Your task to perform on an android device: Open privacy settings Image 0: 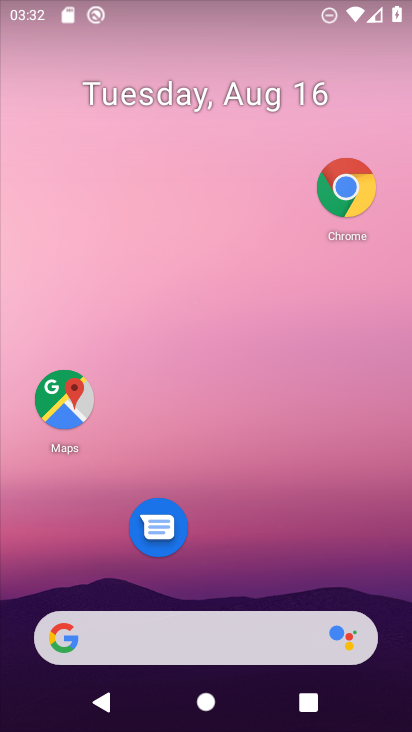
Step 0: drag from (223, 588) to (201, 19)
Your task to perform on an android device: Open privacy settings Image 1: 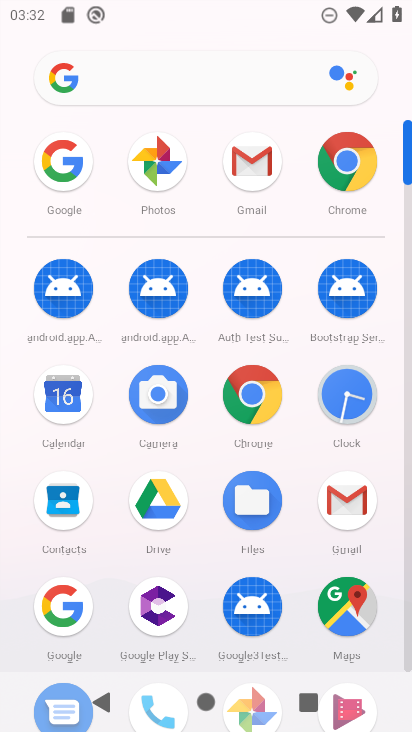
Step 1: drag from (210, 631) to (249, 89)
Your task to perform on an android device: Open privacy settings Image 2: 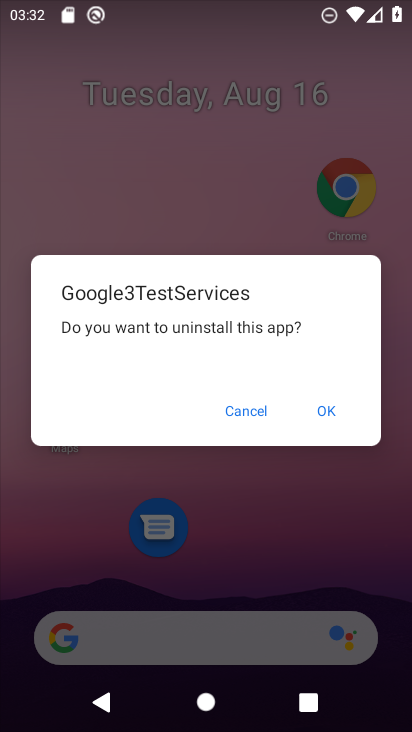
Step 2: click (218, 582)
Your task to perform on an android device: Open privacy settings Image 3: 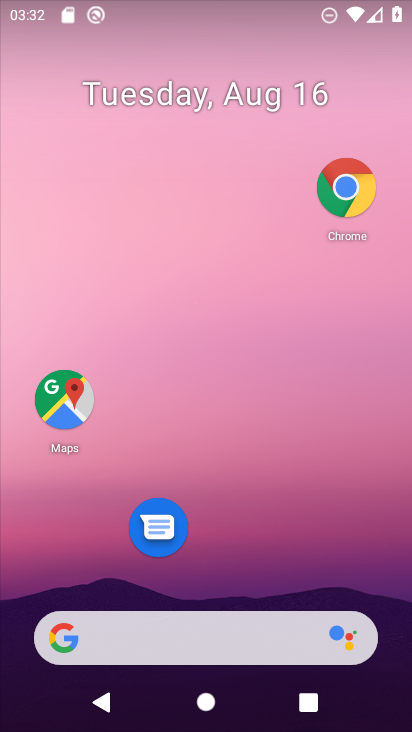
Step 3: drag from (231, 583) to (220, 61)
Your task to perform on an android device: Open privacy settings Image 4: 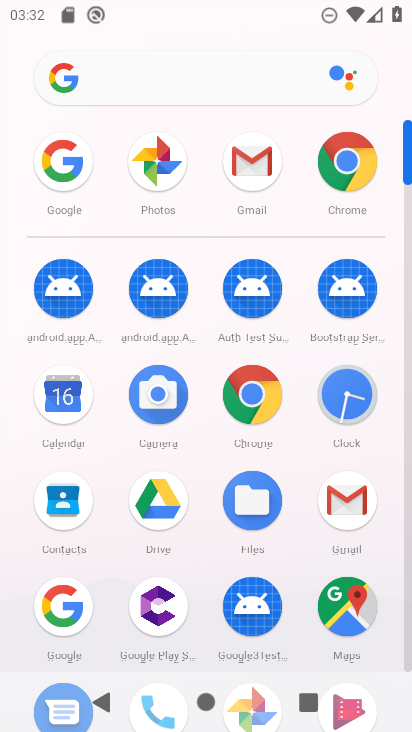
Step 4: drag from (203, 574) to (221, 125)
Your task to perform on an android device: Open privacy settings Image 5: 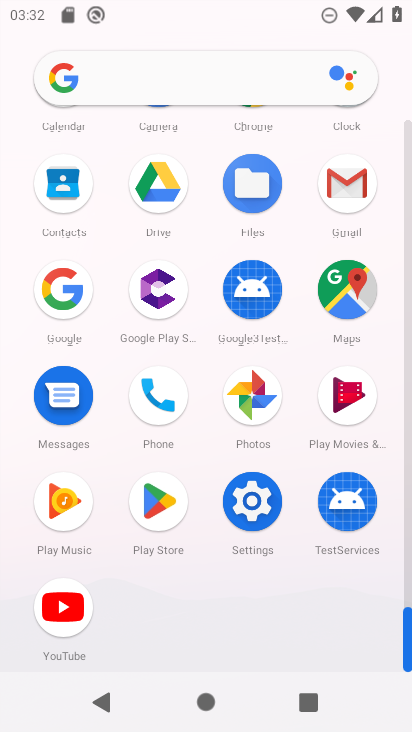
Step 5: click (249, 498)
Your task to perform on an android device: Open privacy settings Image 6: 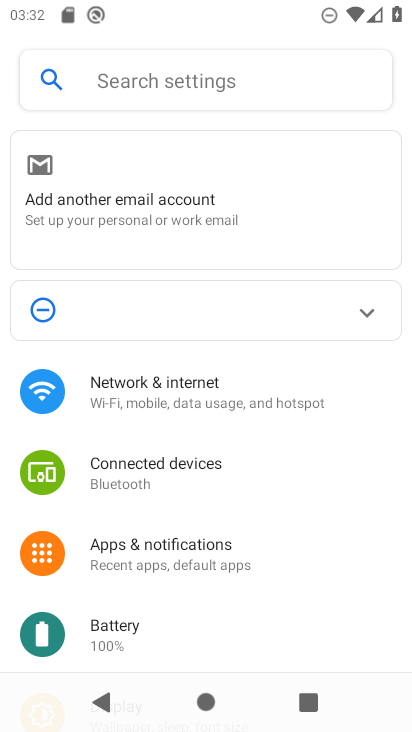
Step 6: drag from (201, 627) to (154, 139)
Your task to perform on an android device: Open privacy settings Image 7: 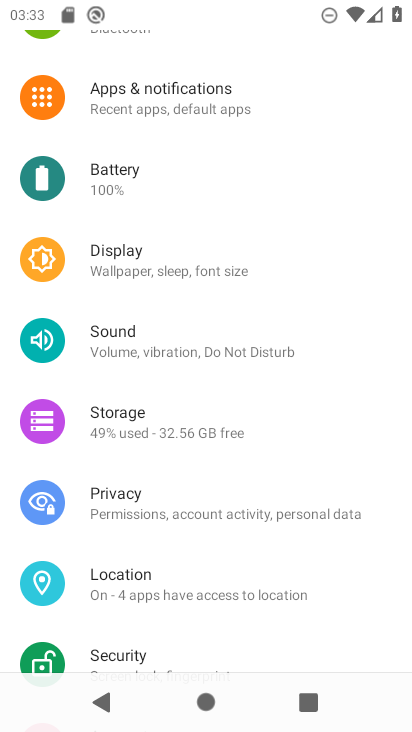
Step 7: click (147, 492)
Your task to perform on an android device: Open privacy settings Image 8: 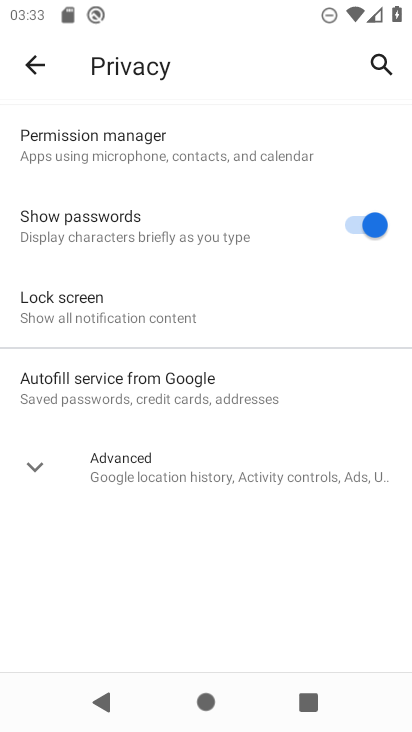
Step 8: click (31, 464)
Your task to perform on an android device: Open privacy settings Image 9: 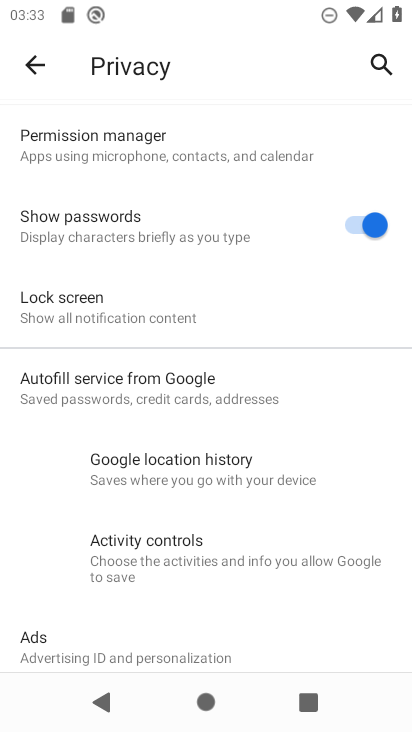
Step 9: task complete